Your task to perform on an android device: move an email to a new category in the gmail app Image 0: 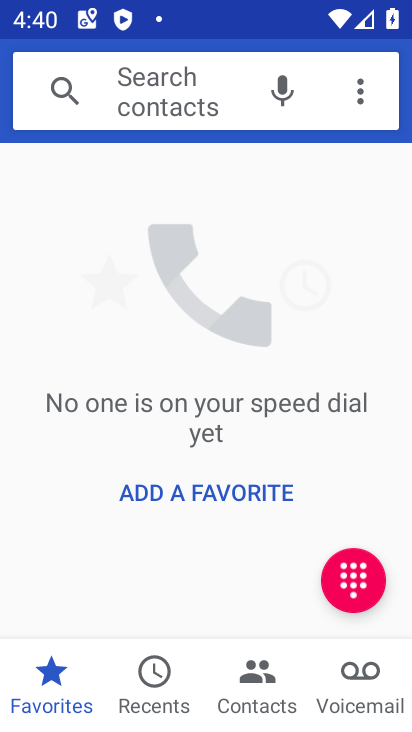
Step 0: press back button
Your task to perform on an android device: move an email to a new category in the gmail app Image 1: 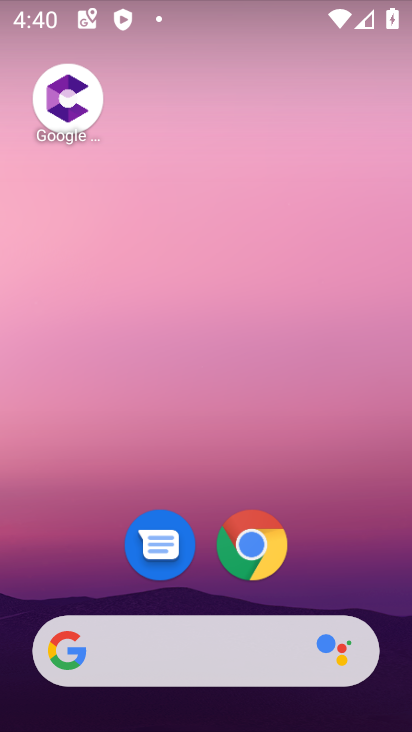
Step 1: drag from (359, 585) to (249, 24)
Your task to perform on an android device: move an email to a new category in the gmail app Image 2: 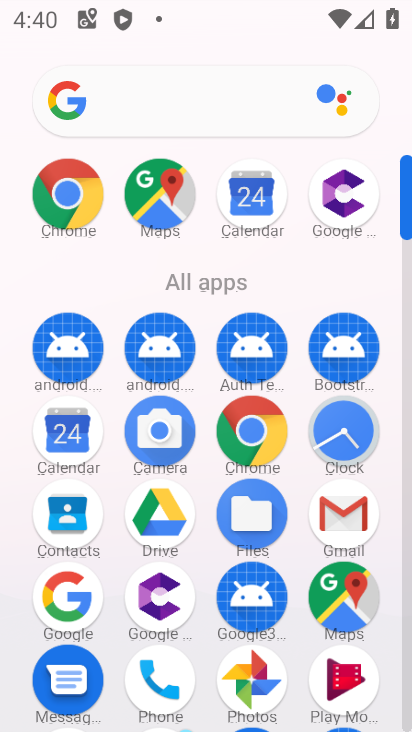
Step 2: click (344, 510)
Your task to perform on an android device: move an email to a new category in the gmail app Image 3: 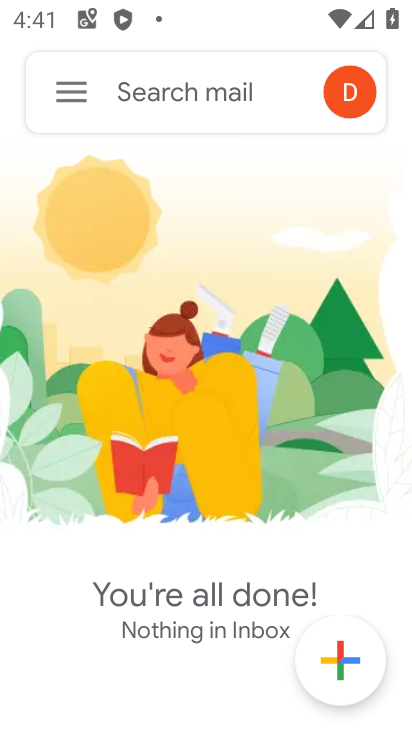
Step 3: click (47, 96)
Your task to perform on an android device: move an email to a new category in the gmail app Image 4: 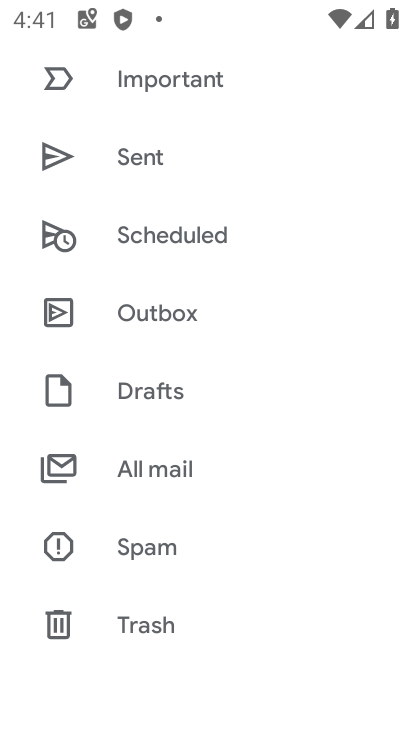
Step 4: click (154, 462)
Your task to perform on an android device: move an email to a new category in the gmail app Image 5: 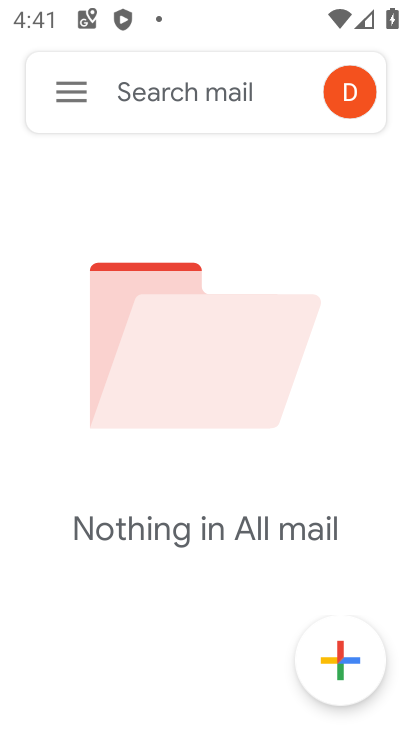
Step 5: click (58, 88)
Your task to perform on an android device: move an email to a new category in the gmail app Image 6: 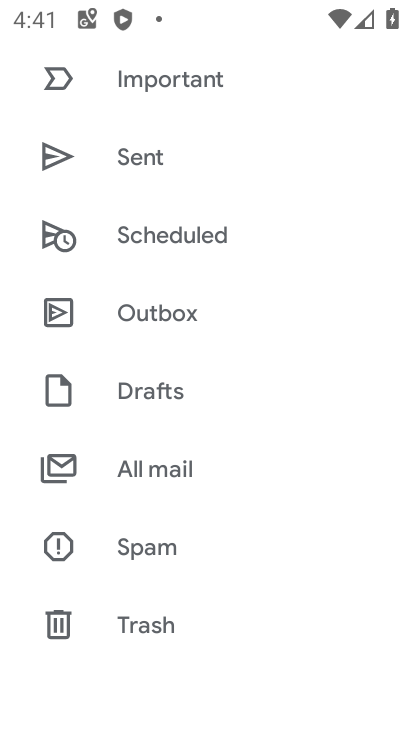
Step 6: drag from (246, 209) to (262, 699)
Your task to perform on an android device: move an email to a new category in the gmail app Image 7: 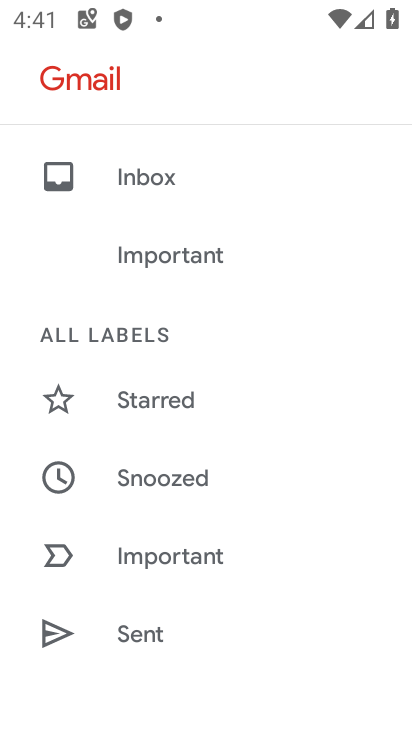
Step 7: click (185, 170)
Your task to perform on an android device: move an email to a new category in the gmail app Image 8: 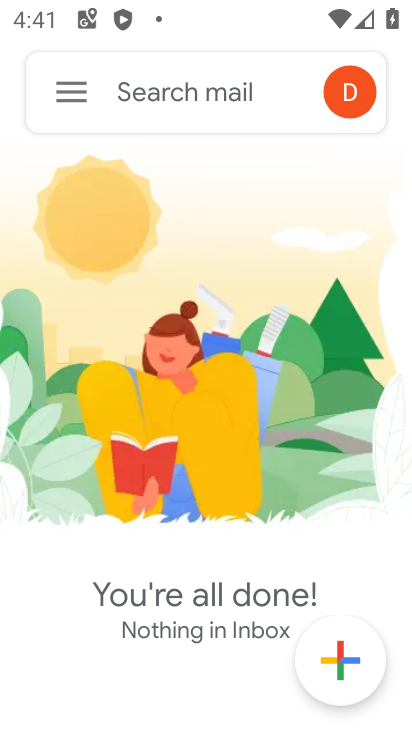
Step 8: click (63, 79)
Your task to perform on an android device: move an email to a new category in the gmail app Image 9: 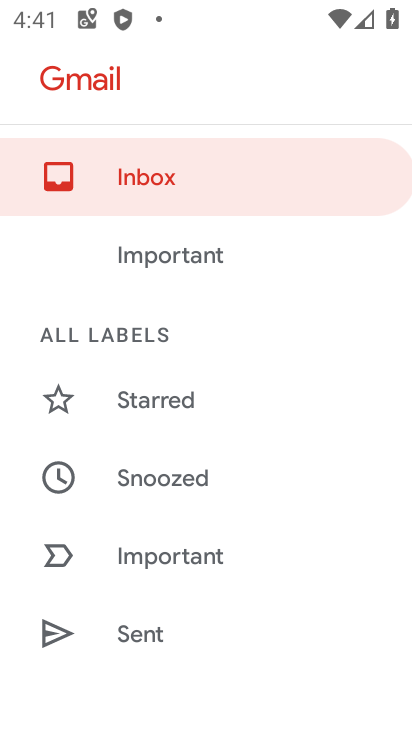
Step 9: drag from (231, 504) to (242, 78)
Your task to perform on an android device: move an email to a new category in the gmail app Image 10: 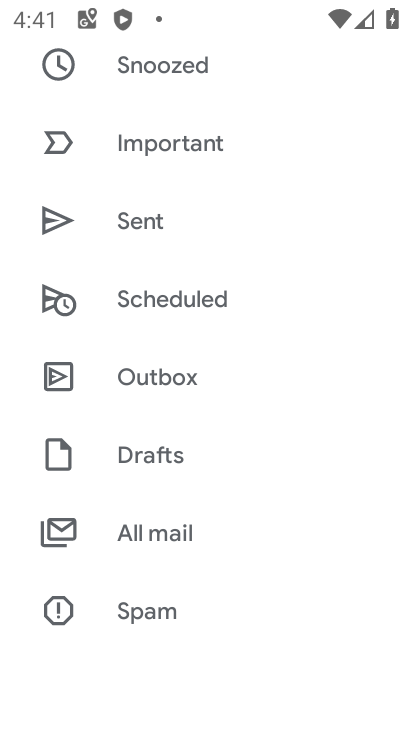
Step 10: drag from (237, 584) to (260, 65)
Your task to perform on an android device: move an email to a new category in the gmail app Image 11: 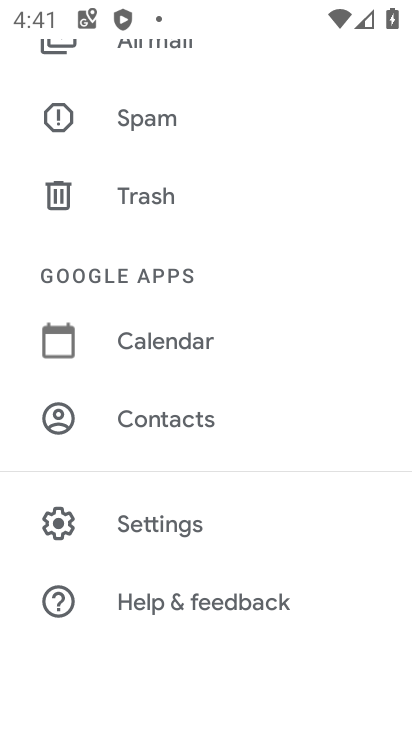
Step 11: drag from (220, 510) to (268, 120)
Your task to perform on an android device: move an email to a new category in the gmail app Image 12: 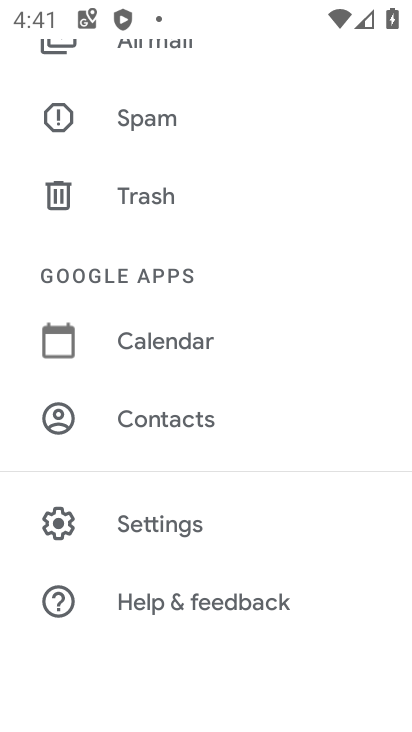
Step 12: drag from (232, 151) to (265, 672)
Your task to perform on an android device: move an email to a new category in the gmail app Image 13: 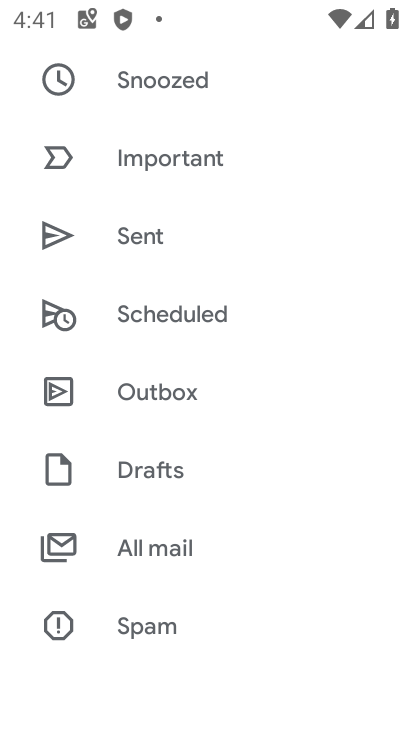
Step 13: drag from (259, 188) to (291, 681)
Your task to perform on an android device: move an email to a new category in the gmail app Image 14: 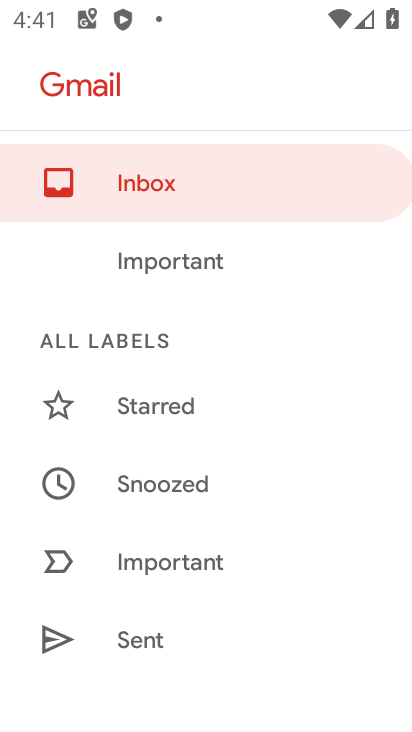
Step 14: click (222, 190)
Your task to perform on an android device: move an email to a new category in the gmail app Image 15: 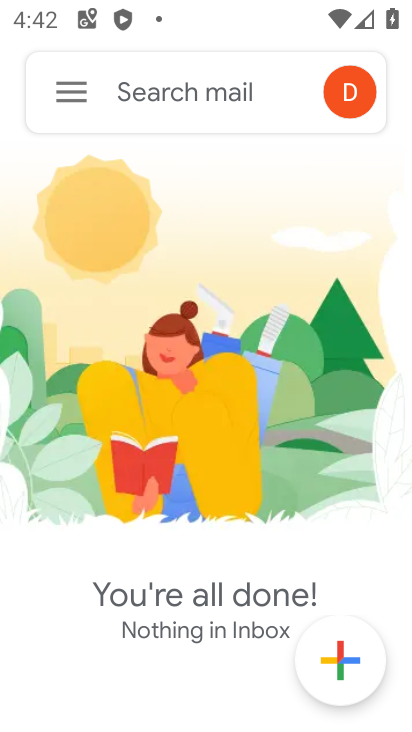
Step 15: task complete